Your task to perform on an android device: add a label to a message in the gmail app Image 0: 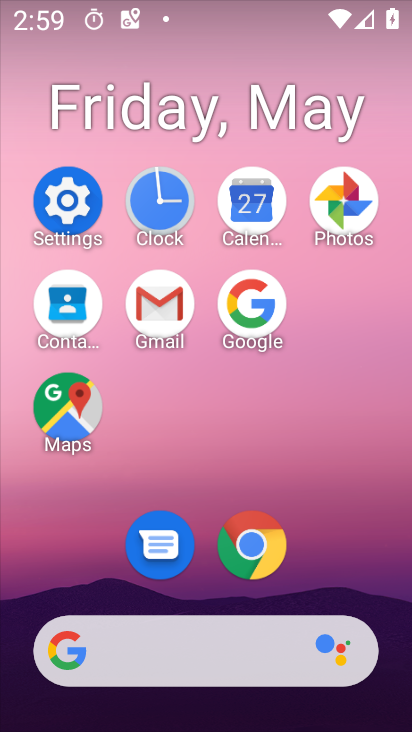
Step 0: click (160, 308)
Your task to perform on an android device: add a label to a message in the gmail app Image 1: 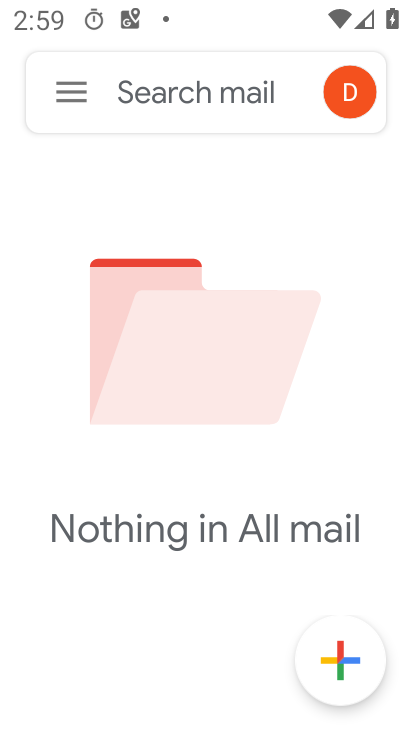
Step 1: click (81, 98)
Your task to perform on an android device: add a label to a message in the gmail app Image 2: 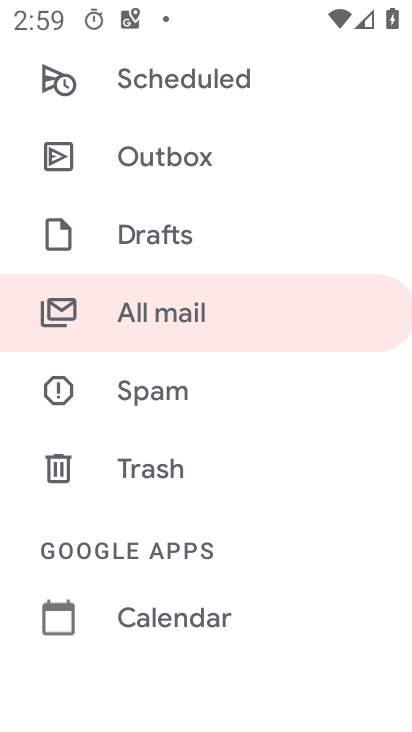
Step 2: click (217, 314)
Your task to perform on an android device: add a label to a message in the gmail app Image 3: 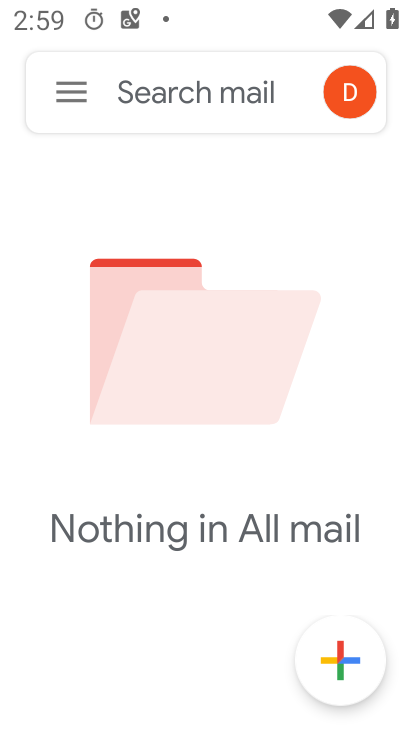
Step 3: task complete